Your task to perform on an android device: Show me the alarms in the clock app Image 0: 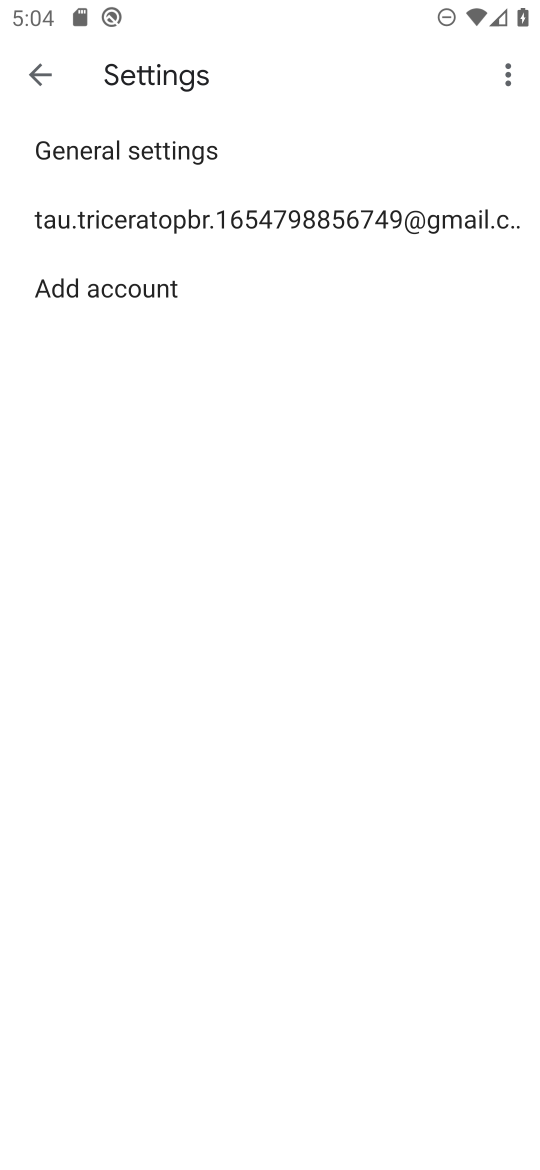
Step 0: press home button
Your task to perform on an android device: Show me the alarms in the clock app Image 1: 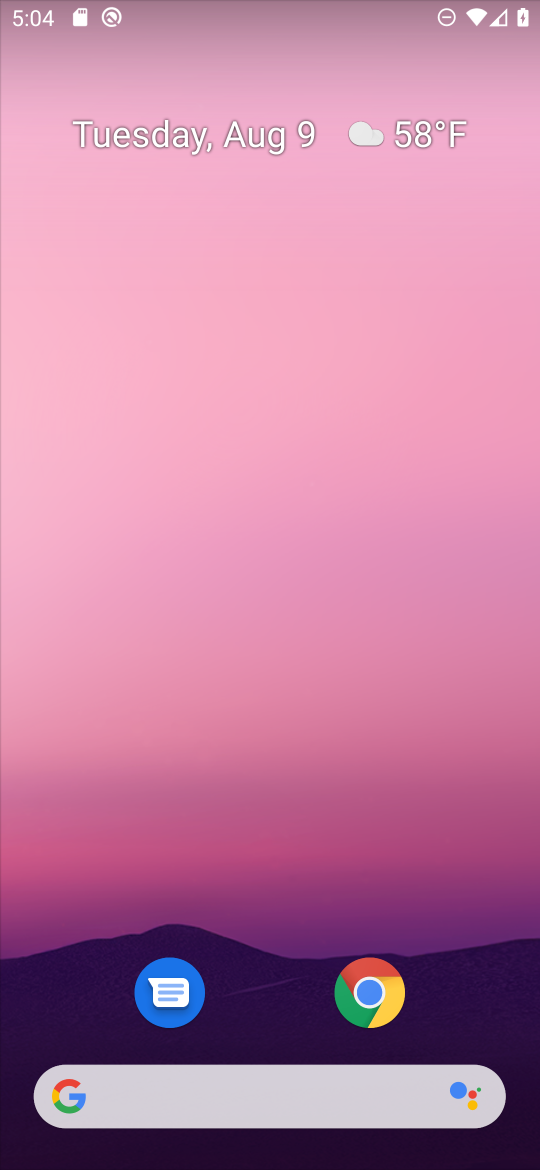
Step 1: drag from (276, 1102) to (275, 38)
Your task to perform on an android device: Show me the alarms in the clock app Image 2: 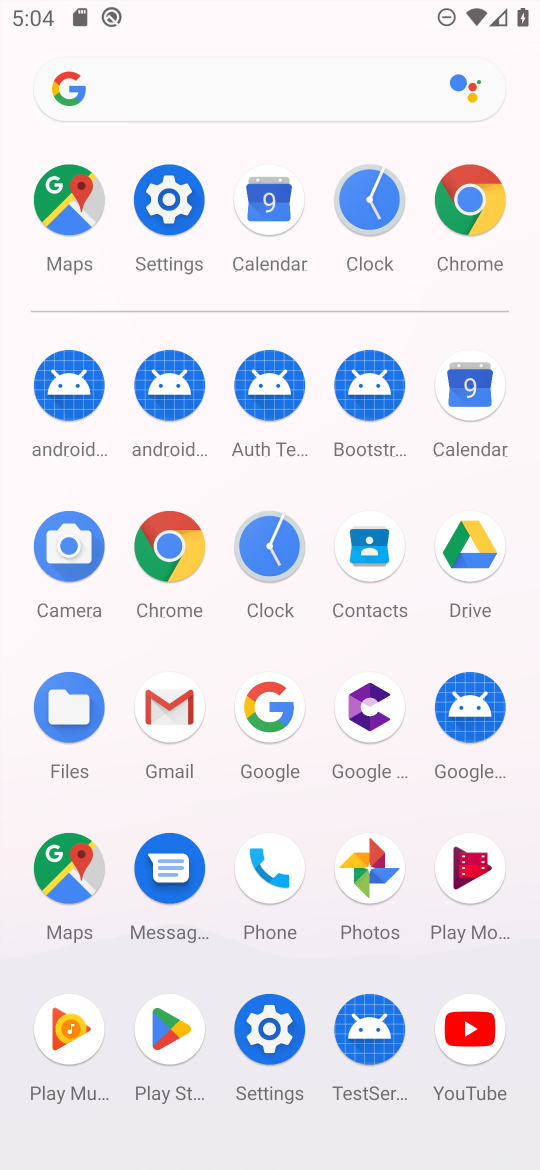
Step 2: click (284, 543)
Your task to perform on an android device: Show me the alarms in the clock app Image 3: 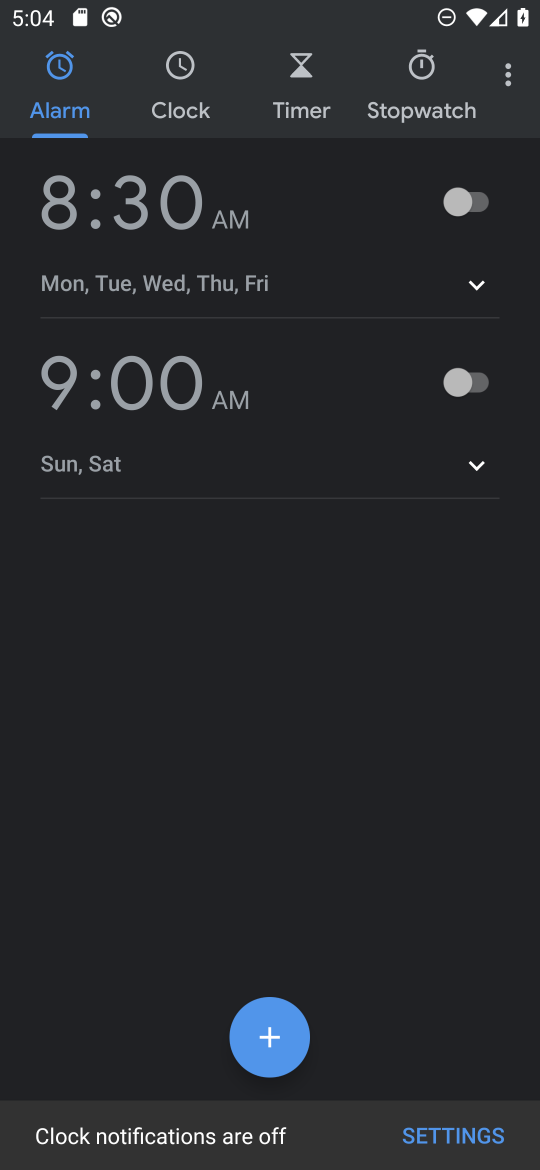
Step 3: task complete